Your task to perform on an android device: check android version Image 0: 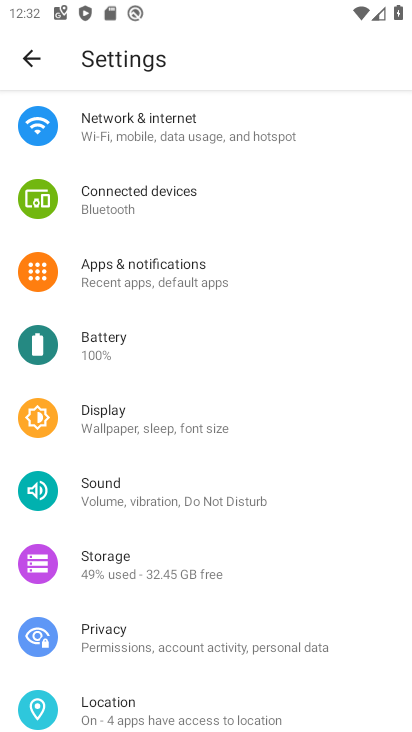
Step 0: drag from (233, 638) to (125, 2)
Your task to perform on an android device: check android version Image 1: 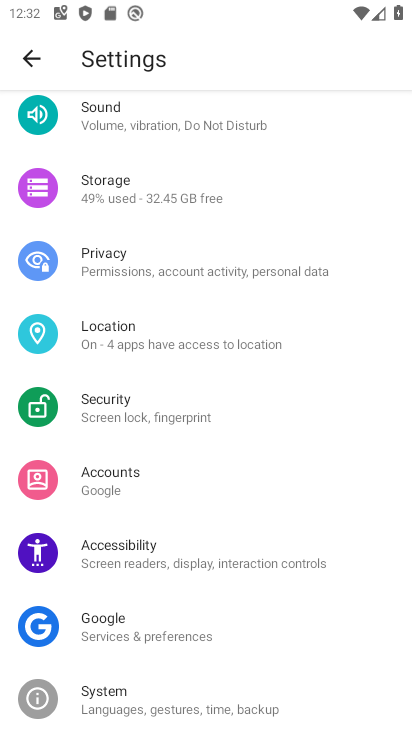
Step 1: drag from (185, 665) to (176, 143)
Your task to perform on an android device: check android version Image 2: 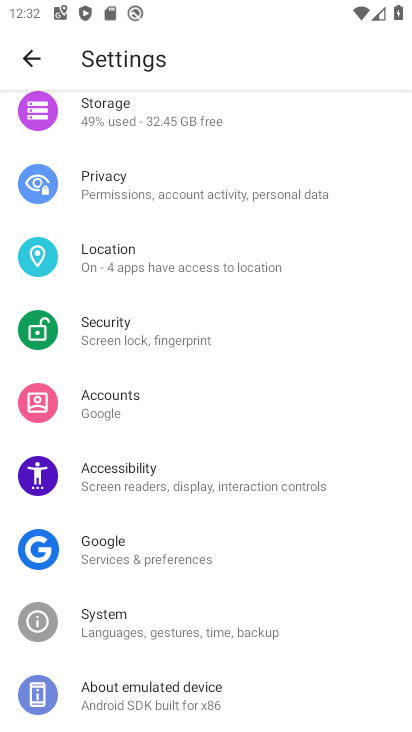
Step 2: click (214, 699)
Your task to perform on an android device: check android version Image 3: 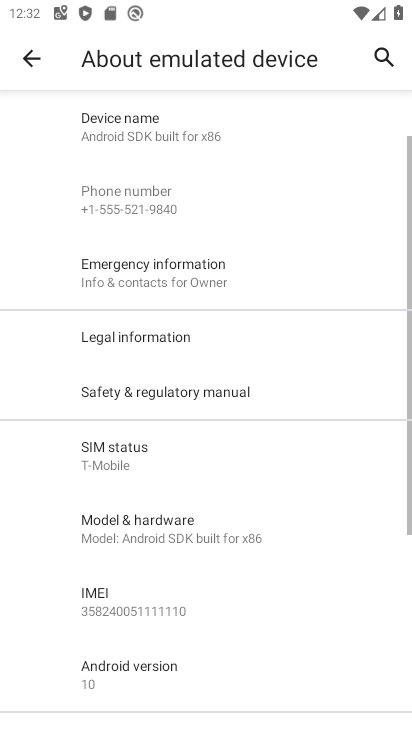
Step 3: task complete